Your task to perform on an android device: find snoozed emails in the gmail app Image 0: 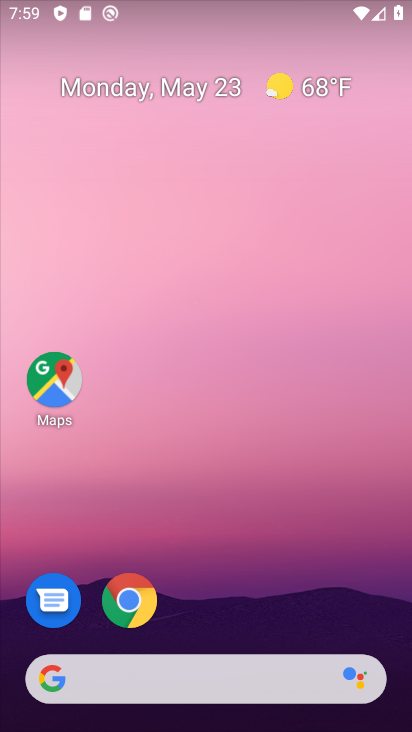
Step 0: drag from (37, 599) to (276, 163)
Your task to perform on an android device: find snoozed emails in the gmail app Image 1: 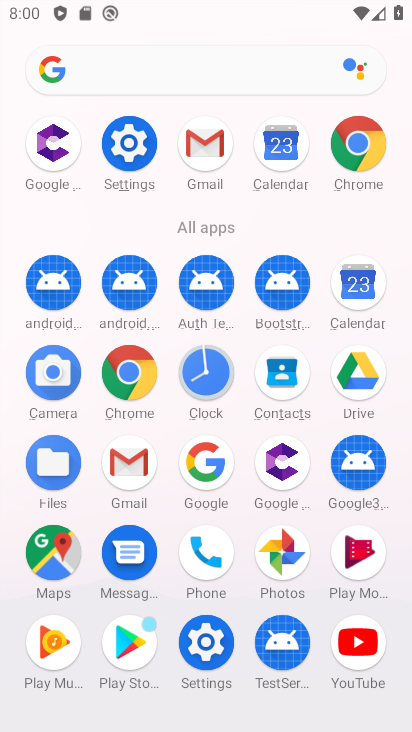
Step 1: click (125, 464)
Your task to perform on an android device: find snoozed emails in the gmail app Image 2: 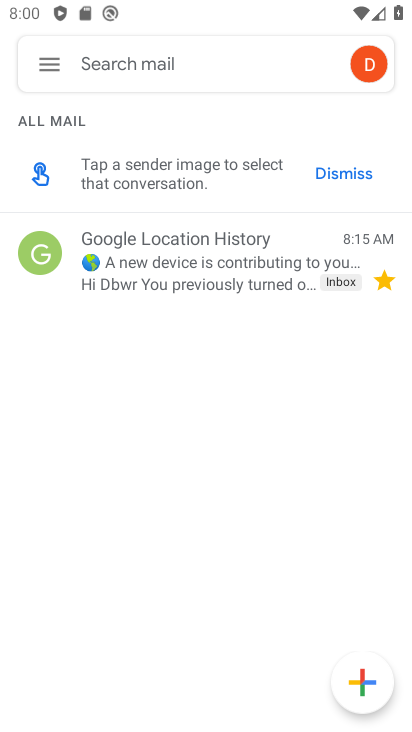
Step 2: click (54, 67)
Your task to perform on an android device: find snoozed emails in the gmail app Image 3: 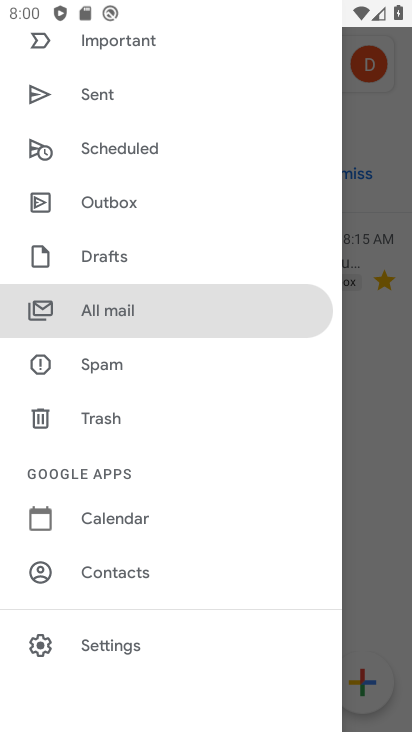
Step 3: drag from (182, 189) to (125, 548)
Your task to perform on an android device: find snoozed emails in the gmail app Image 4: 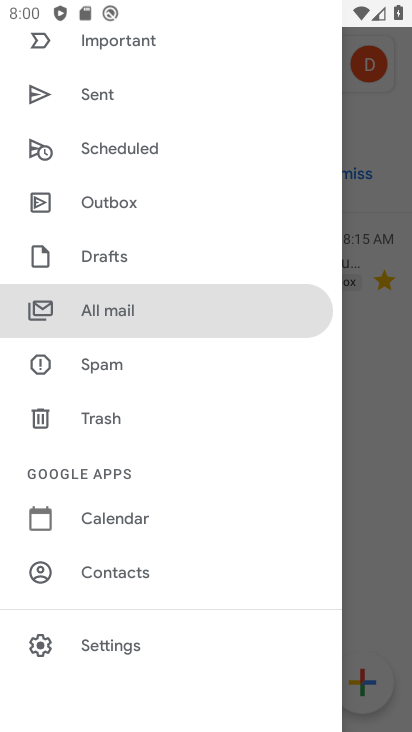
Step 4: drag from (72, 130) to (69, 494)
Your task to perform on an android device: find snoozed emails in the gmail app Image 5: 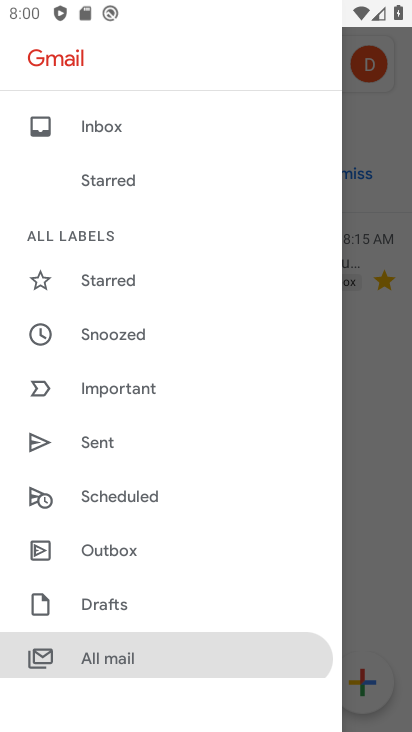
Step 5: click (146, 326)
Your task to perform on an android device: find snoozed emails in the gmail app Image 6: 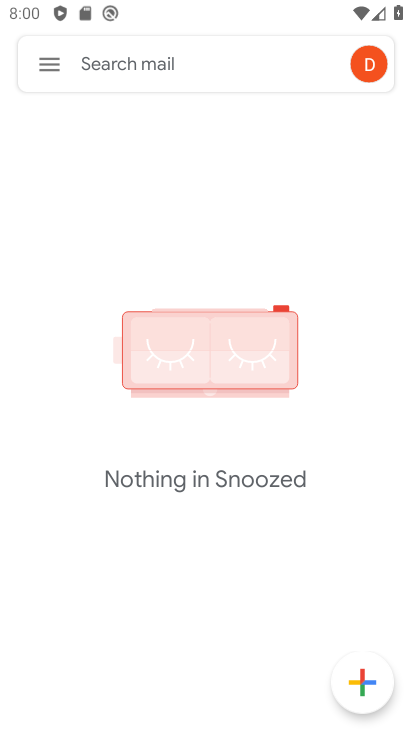
Step 6: task complete